Your task to perform on an android device: Go to ESPN.com Image 0: 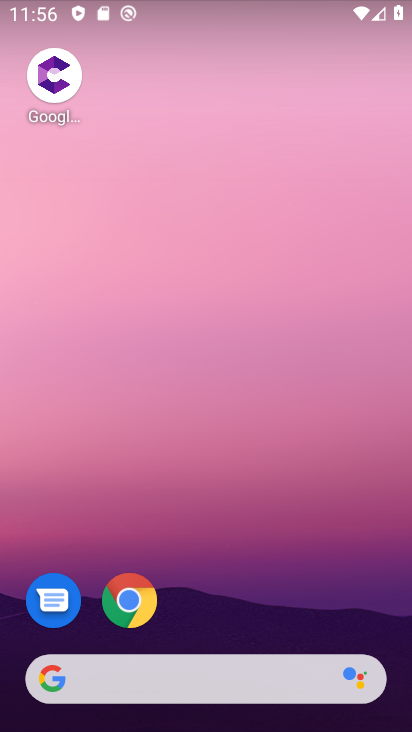
Step 0: click (131, 608)
Your task to perform on an android device: Go to ESPN.com Image 1: 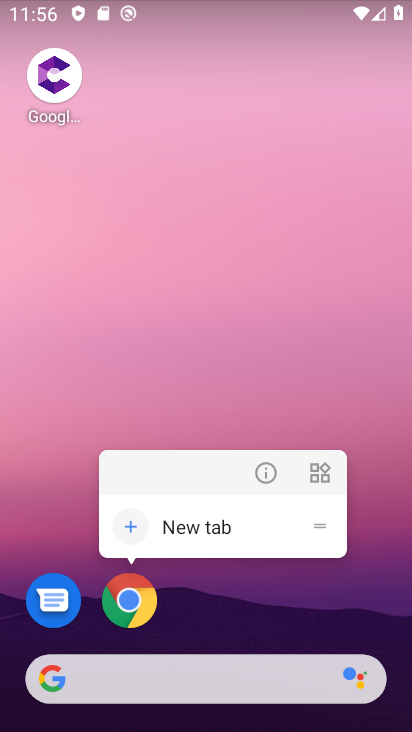
Step 1: click (135, 604)
Your task to perform on an android device: Go to ESPN.com Image 2: 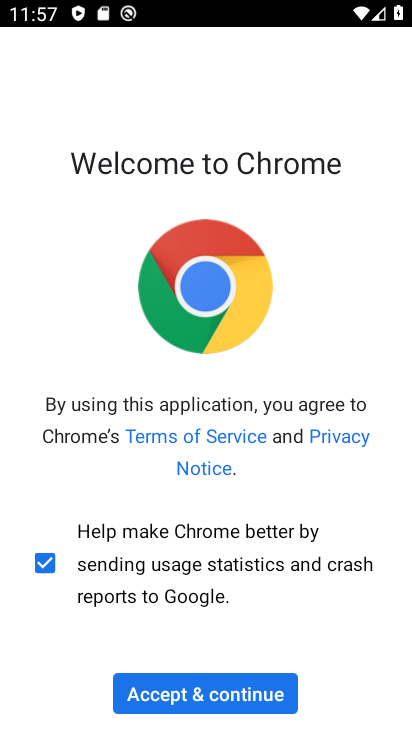
Step 2: click (212, 683)
Your task to perform on an android device: Go to ESPN.com Image 3: 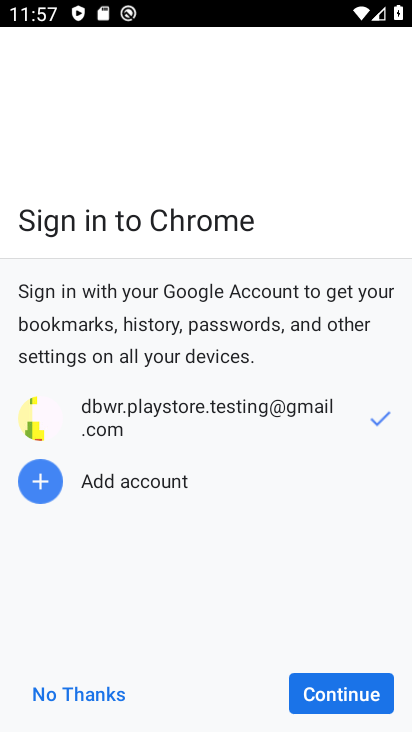
Step 3: click (344, 693)
Your task to perform on an android device: Go to ESPN.com Image 4: 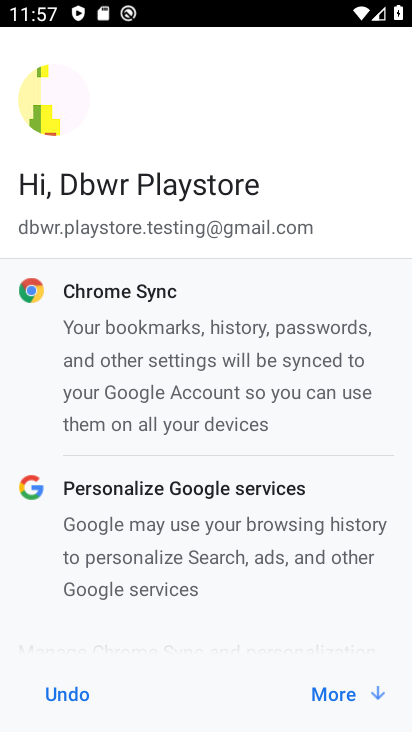
Step 4: click (344, 693)
Your task to perform on an android device: Go to ESPN.com Image 5: 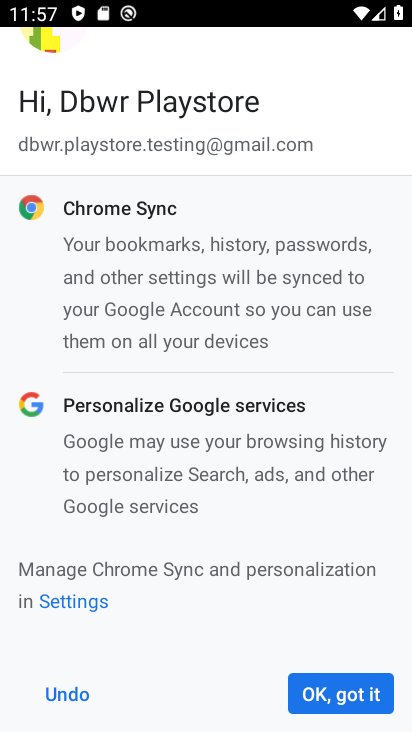
Step 5: click (344, 693)
Your task to perform on an android device: Go to ESPN.com Image 6: 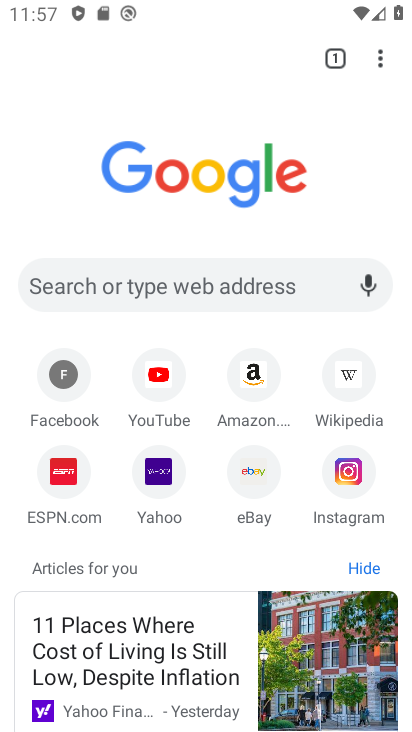
Step 6: click (86, 478)
Your task to perform on an android device: Go to ESPN.com Image 7: 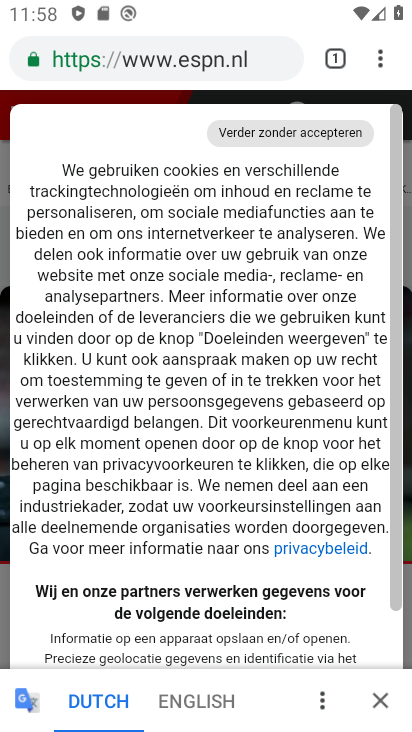
Step 7: task complete